Your task to perform on an android device: turn vacation reply on in the gmail app Image 0: 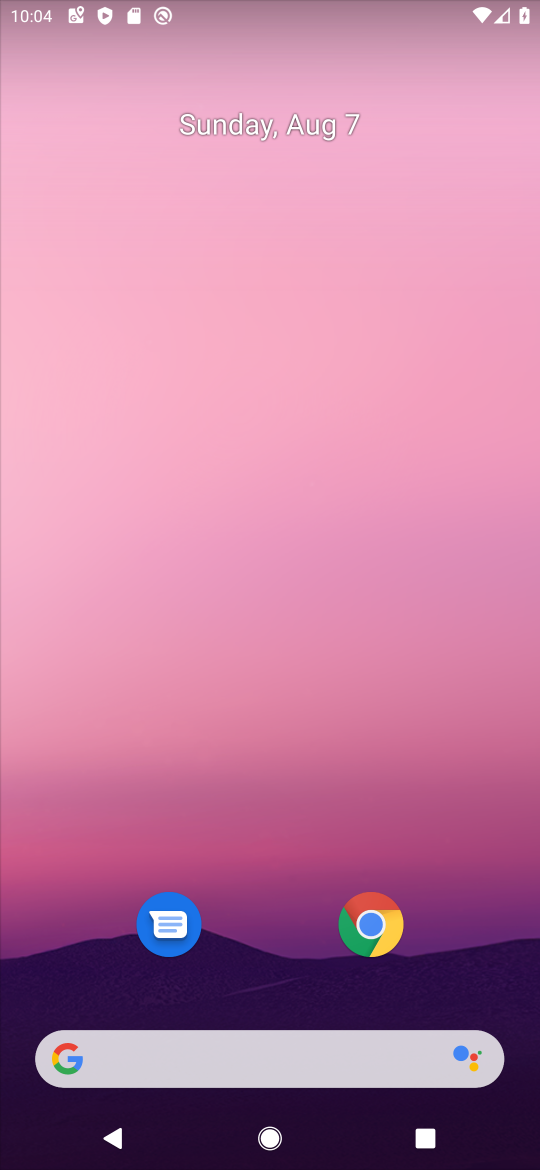
Step 0: drag from (406, 881) to (333, 268)
Your task to perform on an android device: turn vacation reply on in the gmail app Image 1: 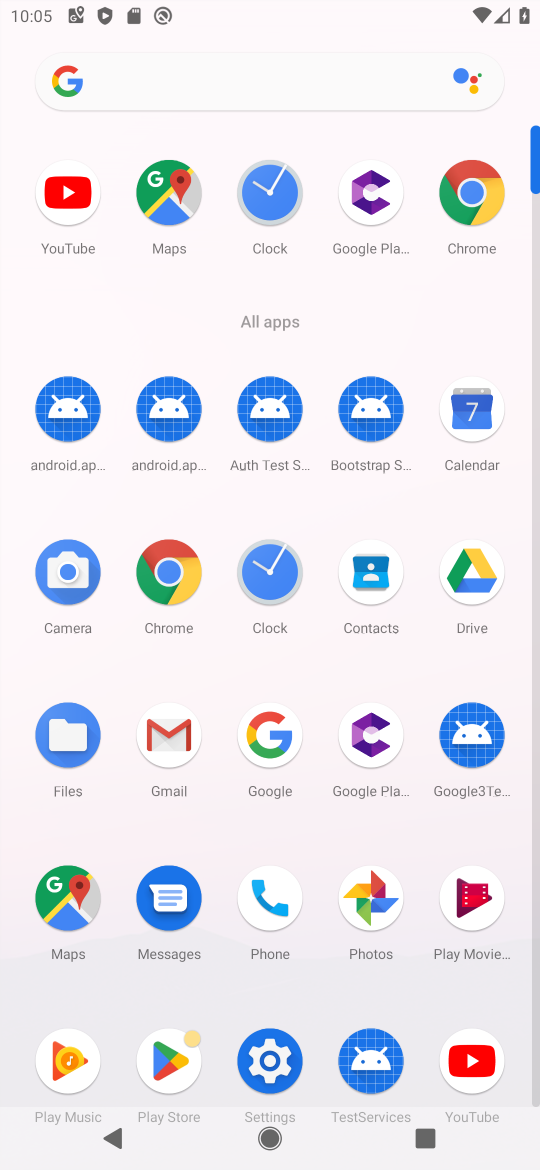
Step 1: click (149, 752)
Your task to perform on an android device: turn vacation reply on in the gmail app Image 2: 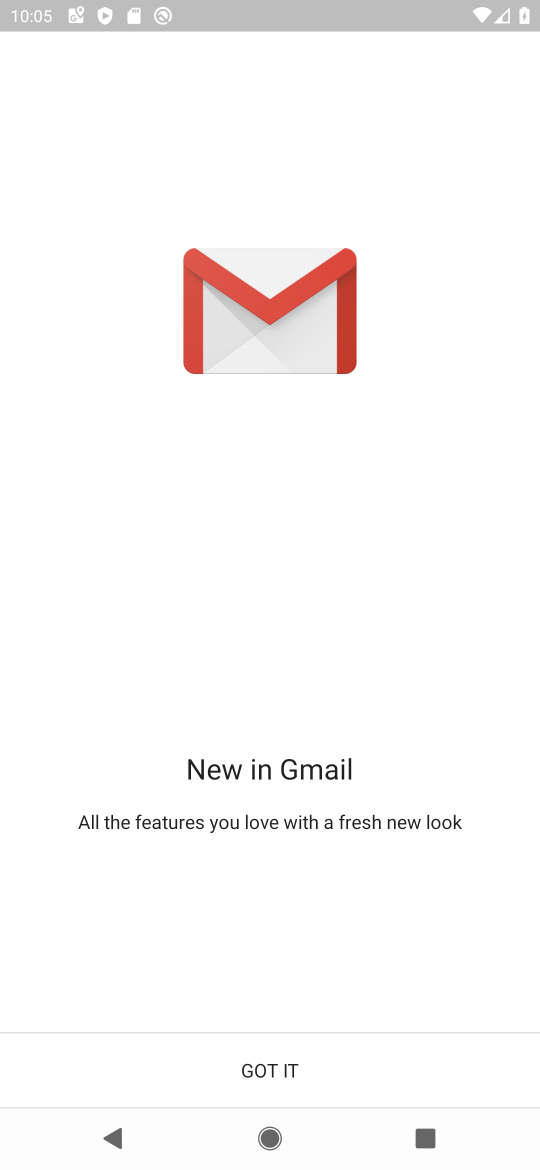
Step 2: click (238, 1050)
Your task to perform on an android device: turn vacation reply on in the gmail app Image 3: 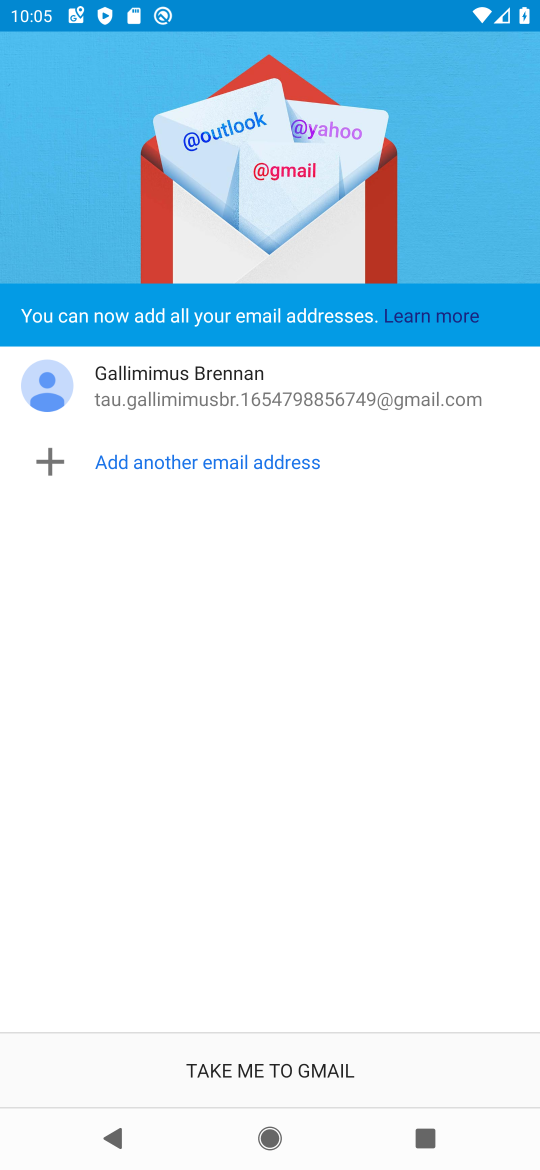
Step 3: click (274, 1055)
Your task to perform on an android device: turn vacation reply on in the gmail app Image 4: 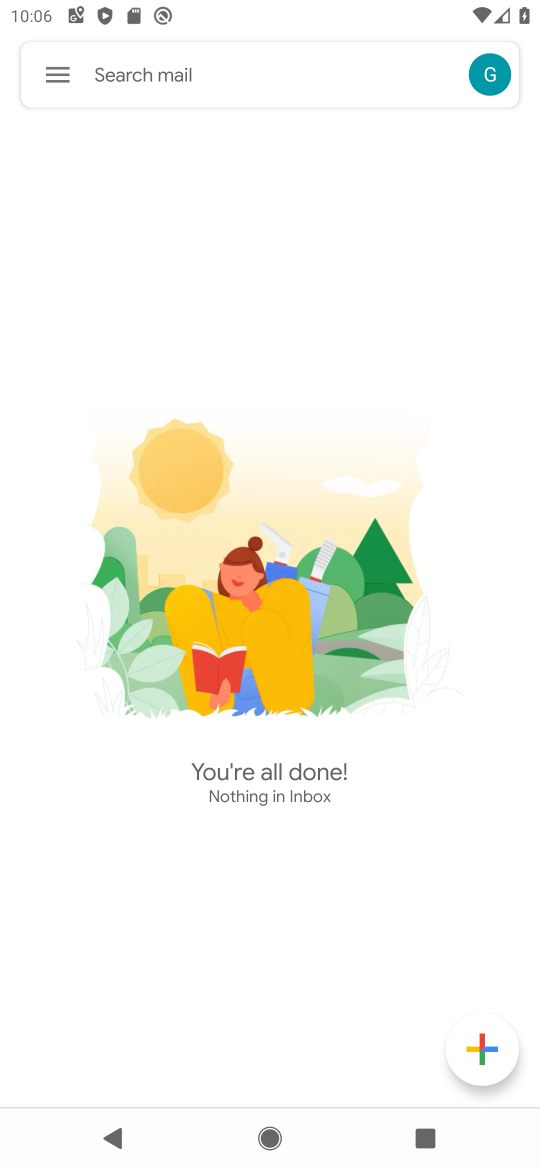
Step 4: click (49, 88)
Your task to perform on an android device: turn vacation reply on in the gmail app Image 5: 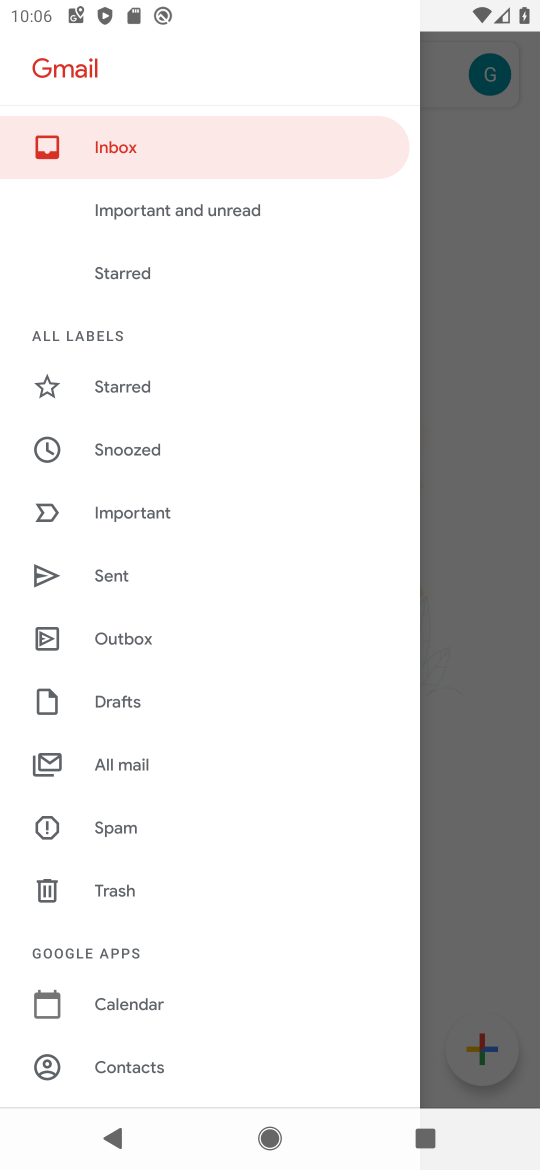
Step 5: drag from (171, 947) to (186, 475)
Your task to perform on an android device: turn vacation reply on in the gmail app Image 6: 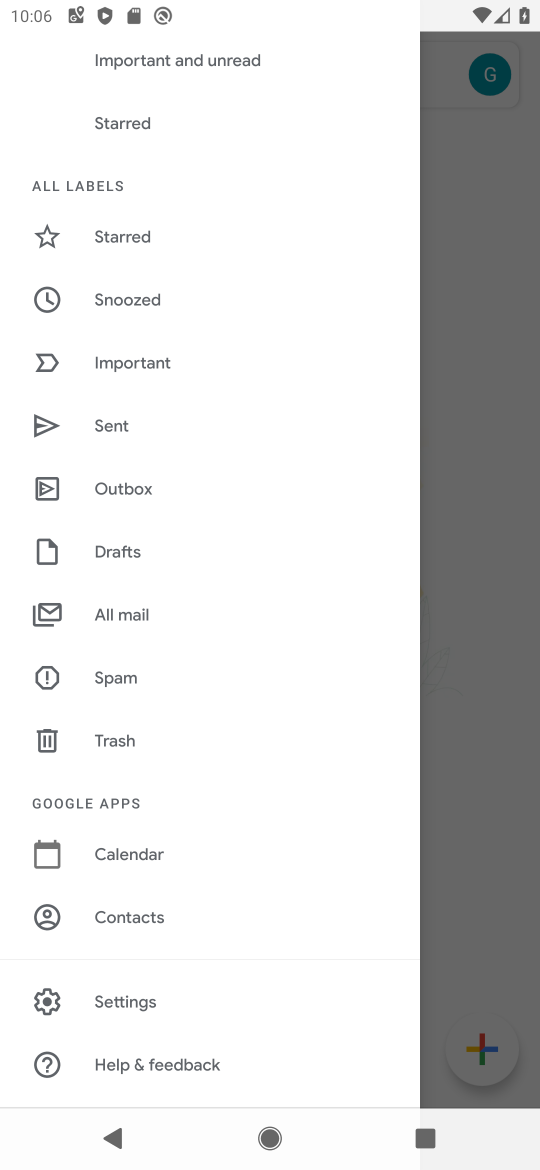
Step 6: click (136, 996)
Your task to perform on an android device: turn vacation reply on in the gmail app Image 7: 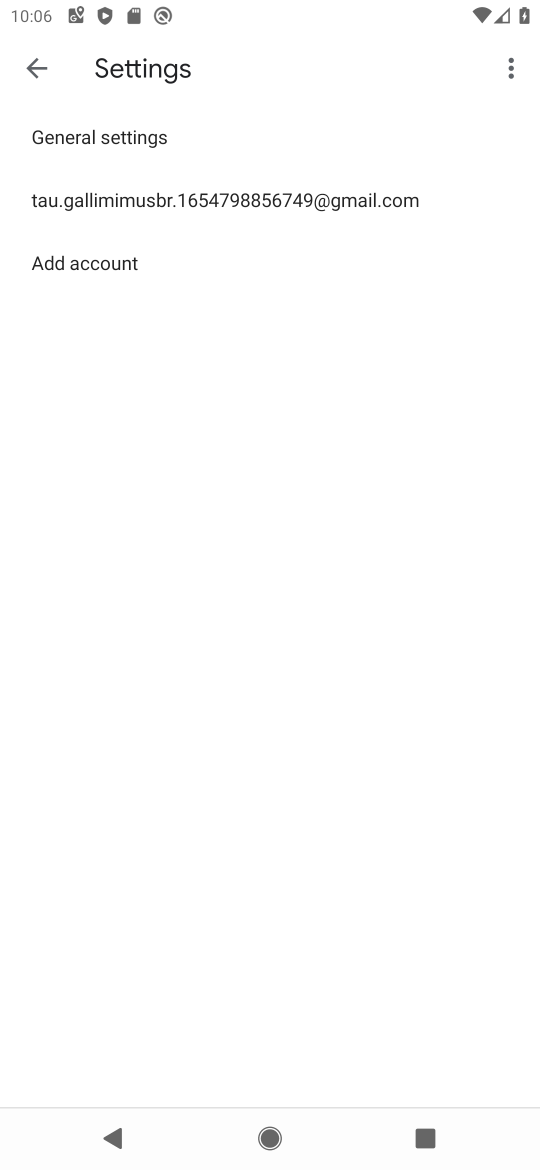
Step 7: click (193, 202)
Your task to perform on an android device: turn vacation reply on in the gmail app Image 8: 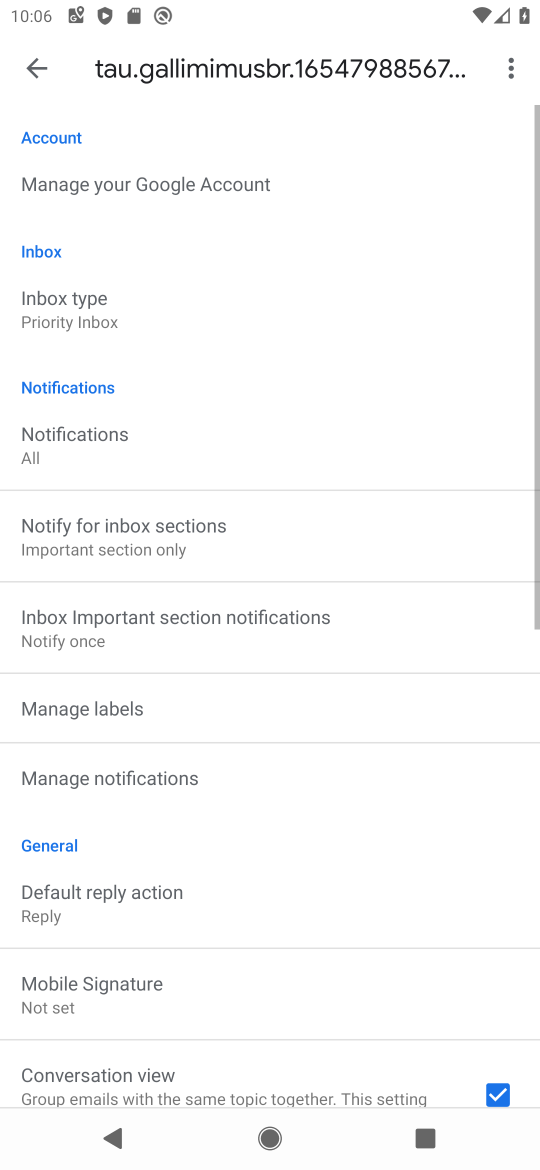
Step 8: drag from (421, 791) to (373, 186)
Your task to perform on an android device: turn vacation reply on in the gmail app Image 9: 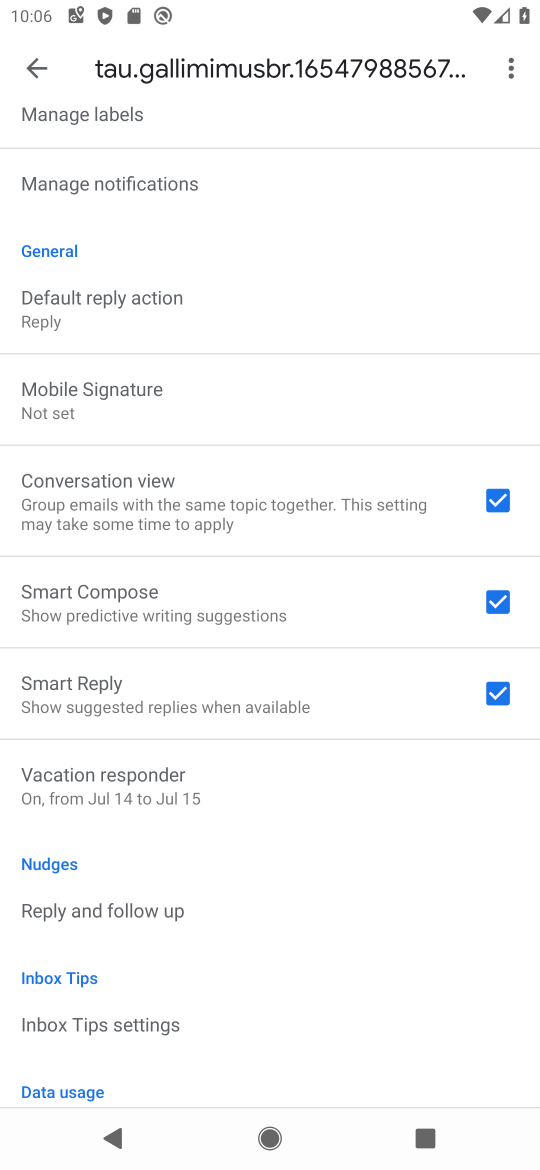
Step 9: click (262, 786)
Your task to perform on an android device: turn vacation reply on in the gmail app Image 10: 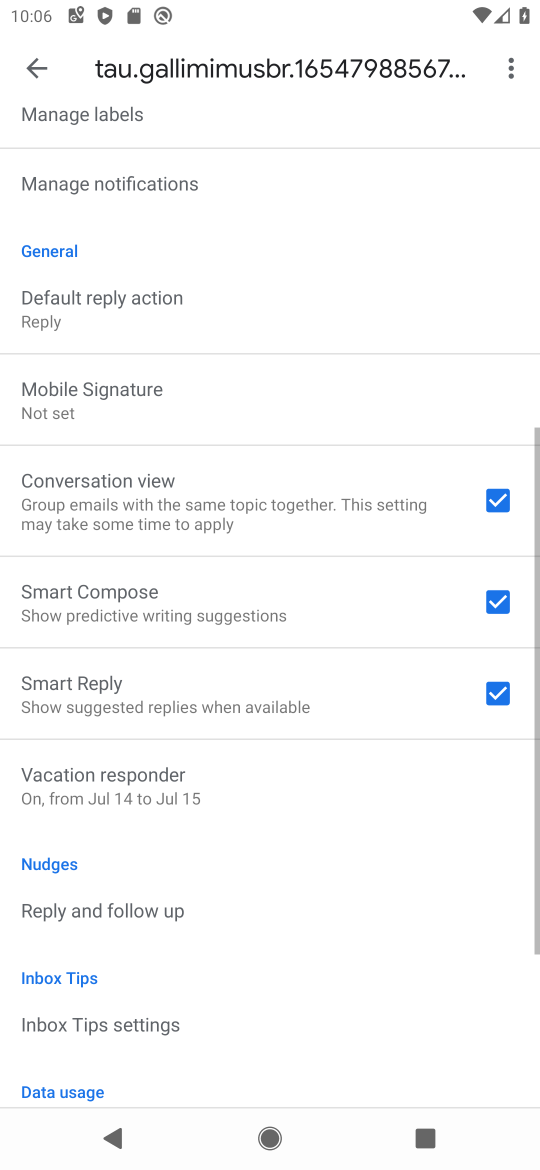
Step 10: task complete